Your task to perform on an android device: create a new album in the google photos Image 0: 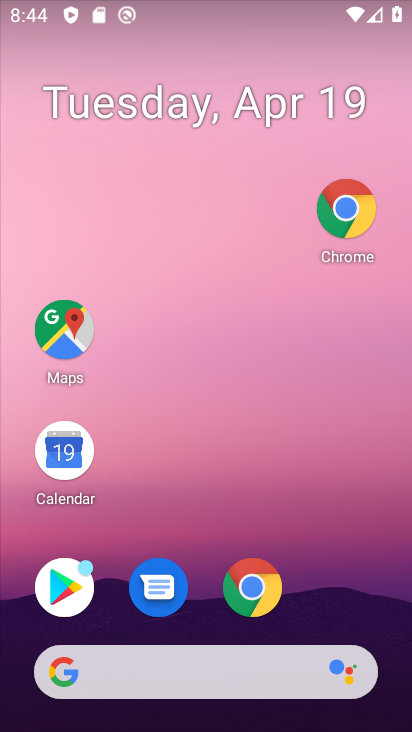
Step 0: drag from (312, 700) to (139, 88)
Your task to perform on an android device: create a new album in the google photos Image 1: 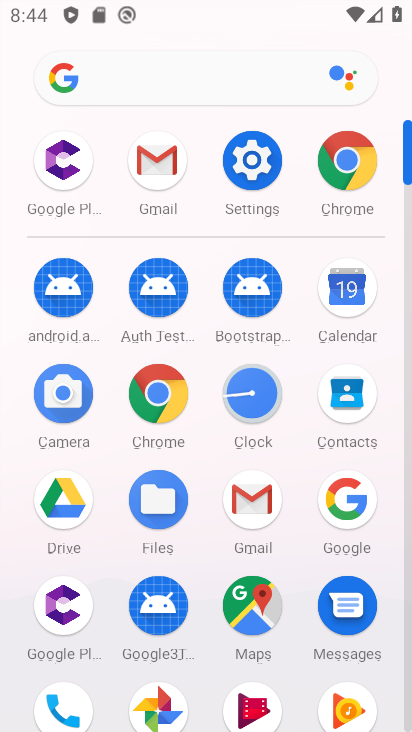
Step 1: click (151, 701)
Your task to perform on an android device: create a new album in the google photos Image 2: 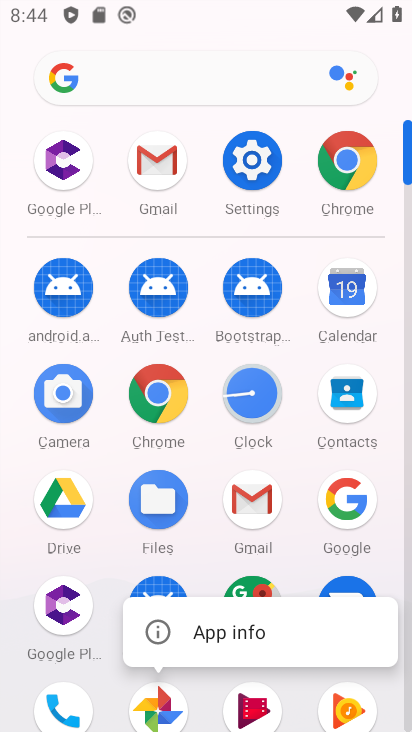
Step 2: click (152, 705)
Your task to perform on an android device: create a new album in the google photos Image 3: 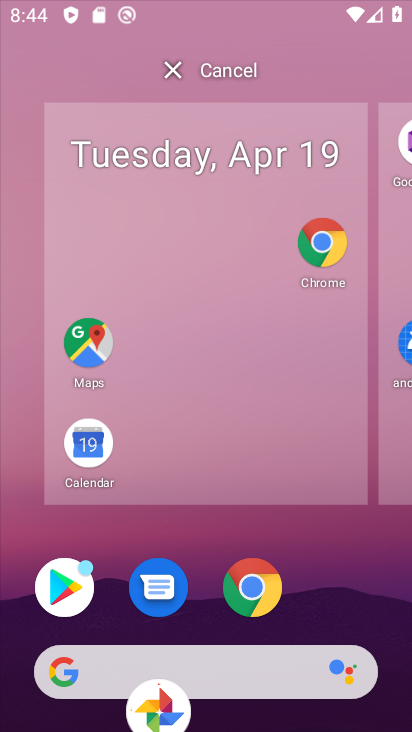
Step 3: click (153, 704)
Your task to perform on an android device: create a new album in the google photos Image 4: 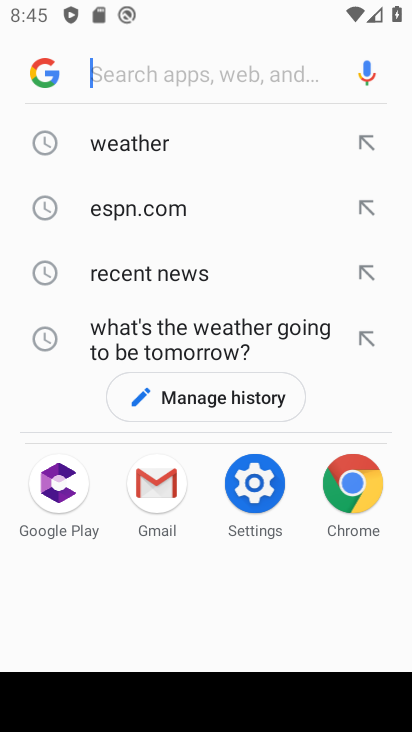
Step 4: press home button
Your task to perform on an android device: create a new album in the google photos Image 5: 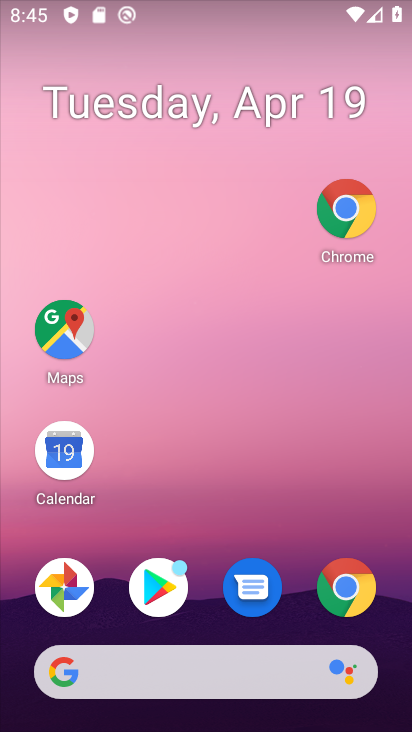
Step 5: press home button
Your task to perform on an android device: create a new album in the google photos Image 6: 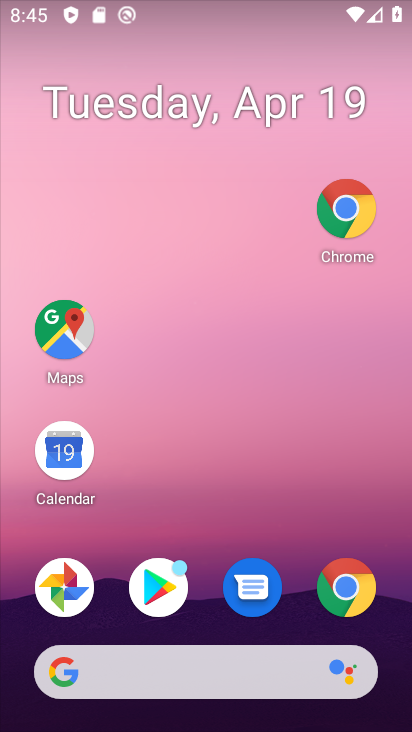
Step 6: drag from (267, 698) to (166, 168)
Your task to perform on an android device: create a new album in the google photos Image 7: 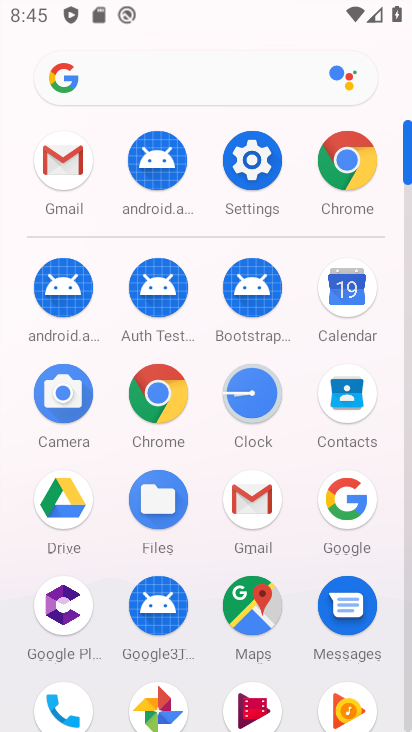
Step 7: click (152, 704)
Your task to perform on an android device: create a new album in the google photos Image 8: 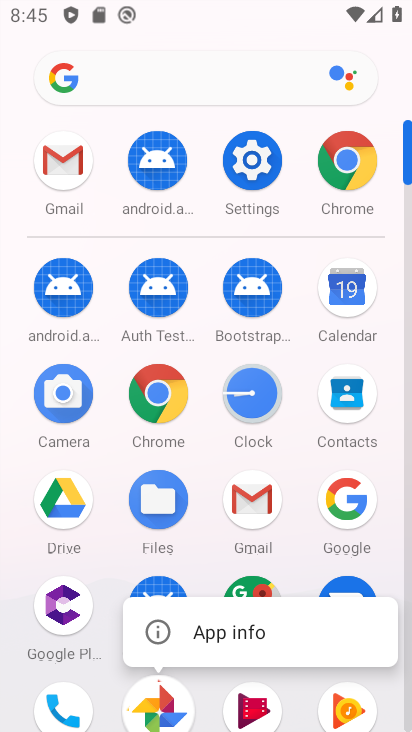
Step 8: click (152, 704)
Your task to perform on an android device: create a new album in the google photos Image 9: 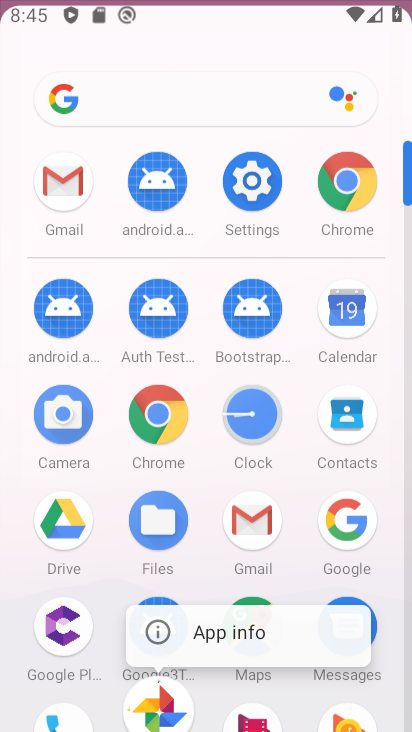
Step 9: click (152, 695)
Your task to perform on an android device: create a new album in the google photos Image 10: 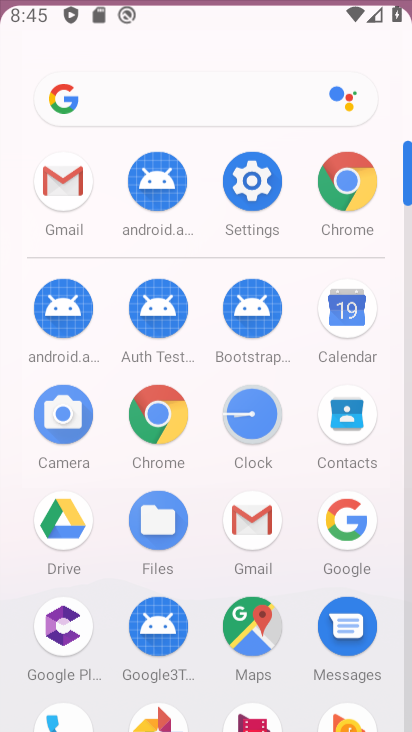
Step 10: click (154, 694)
Your task to perform on an android device: create a new album in the google photos Image 11: 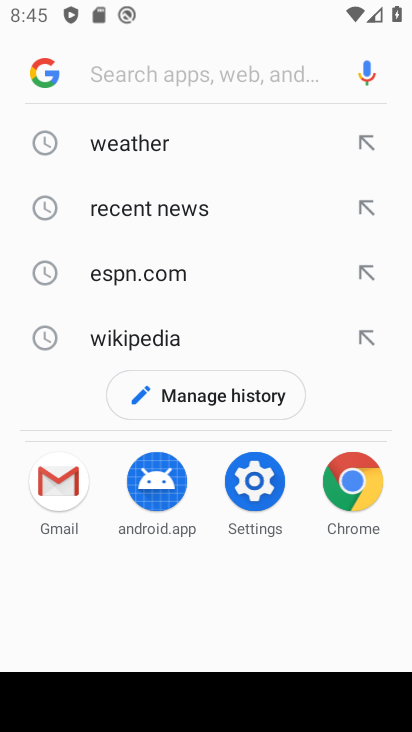
Step 11: press home button
Your task to perform on an android device: create a new album in the google photos Image 12: 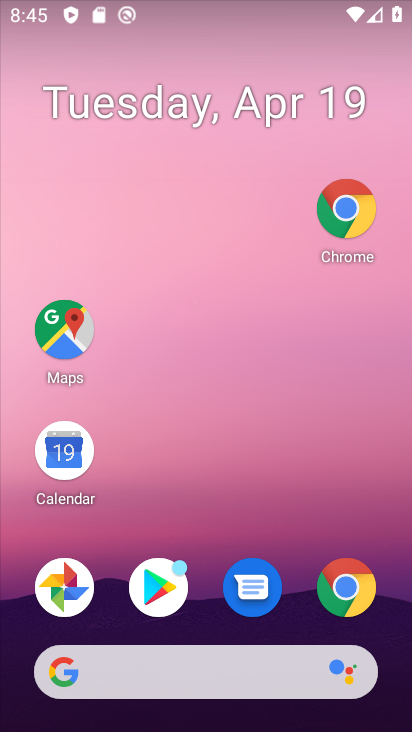
Step 12: drag from (190, 484) to (161, 23)
Your task to perform on an android device: create a new album in the google photos Image 13: 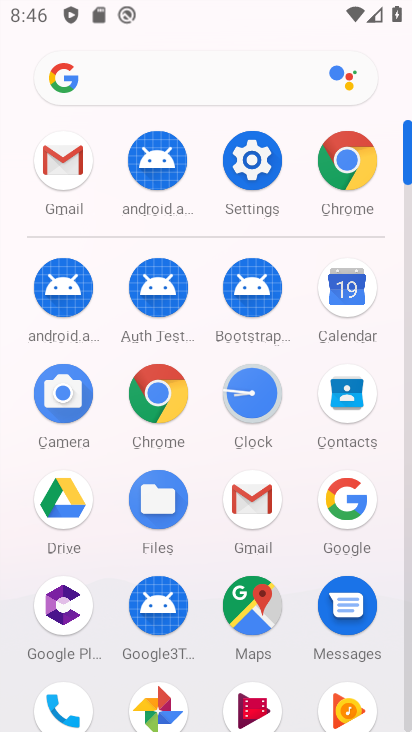
Step 13: click (158, 698)
Your task to perform on an android device: create a new album in the google photos Image 14: 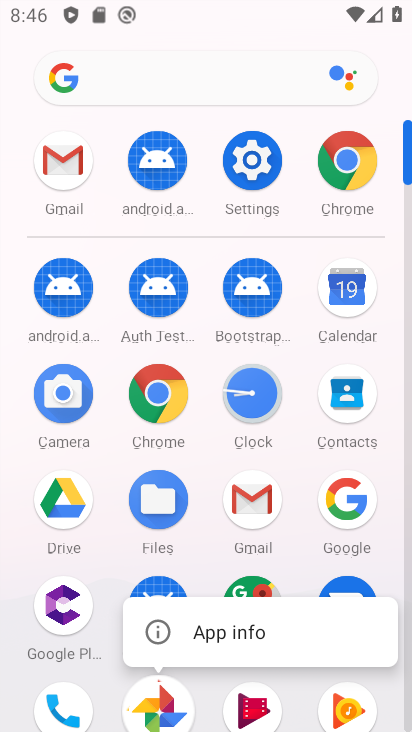
Step 14: click (158, 699)
Your task to perform on an android device: create a new album in the google photos Image 15: 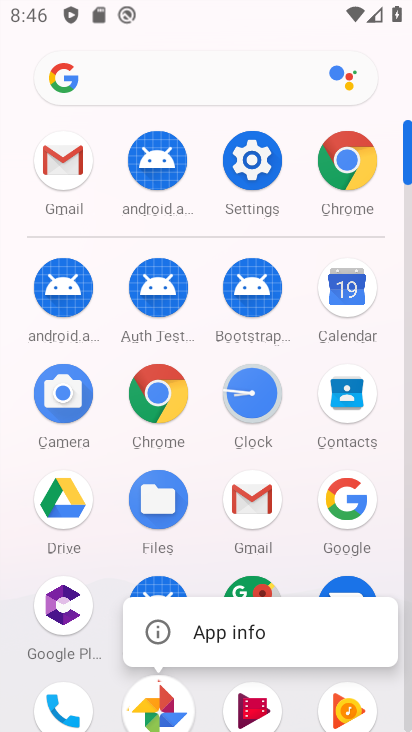
Step 15: click (160, 714)
Your task to perform on an android device: create a new album in the google photos Image 16: 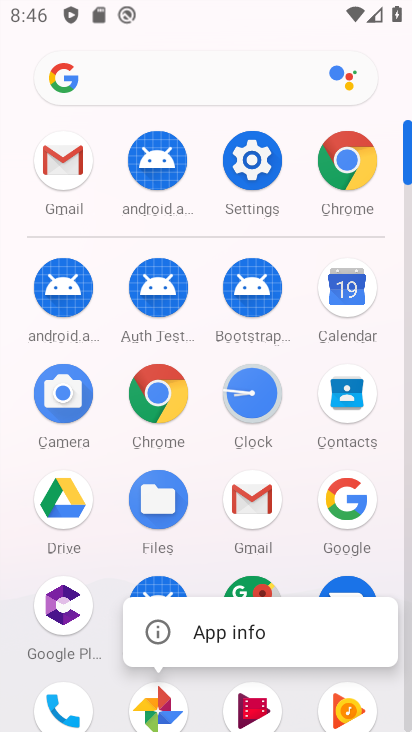
Step 16: click (163, 707)
Your task to perform on an android device: create a new album in the google photos Image 17: 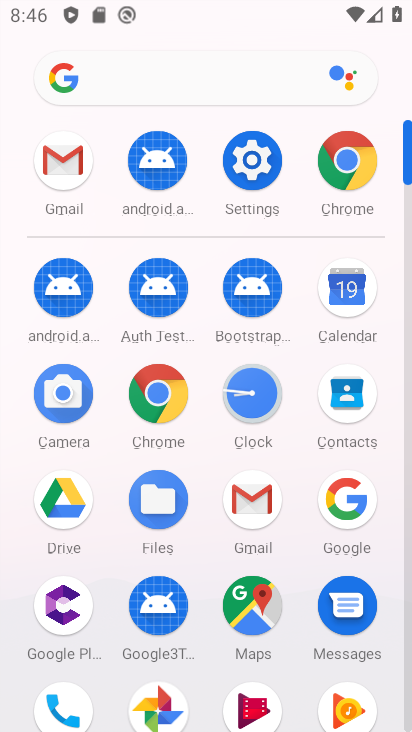
Step 17: click (163, 707)
Your task to perform on an android device: create a new album in the google photos Image 18: 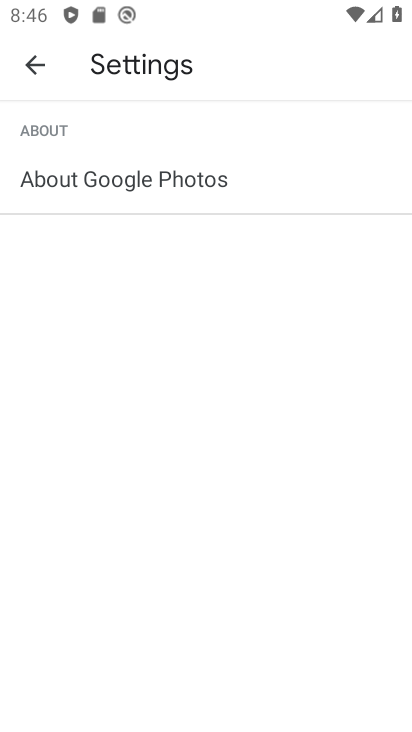
Step 18: click (28, 60)
Your task to perform on an android device: create a new album in the google photos Image 19: 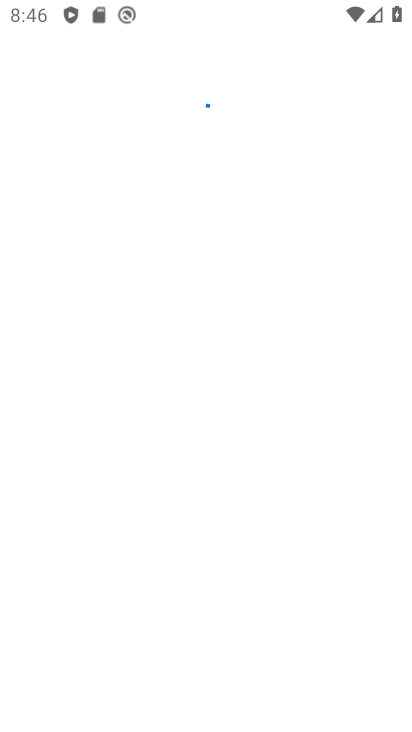
Step 19: click (28, 62)
Your task to perform on an android device: create a new album in the google photos Image 20: 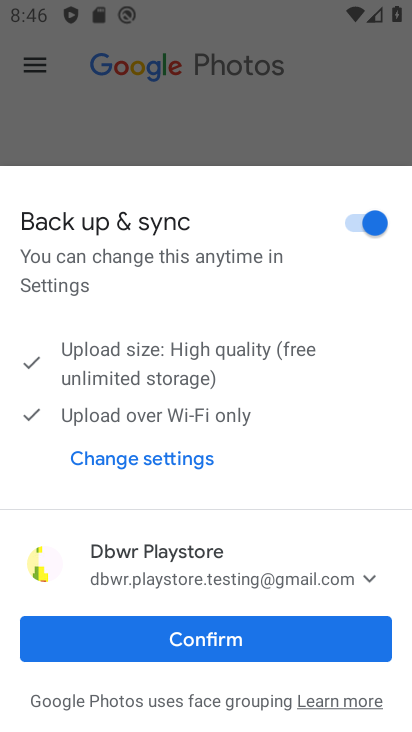
Step 20: click (218, 629)
Your task to perform on an android device: create a new album in the google photos Image 21: 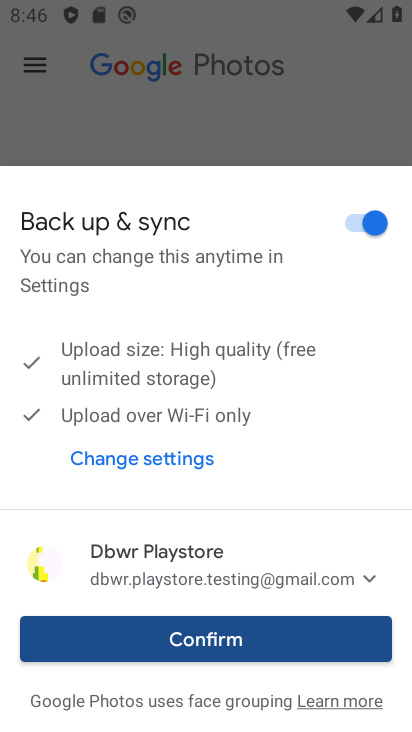
Step 21: click (218, 629)
Your task to perform on an android device: create a new album in the google photos Image 22: 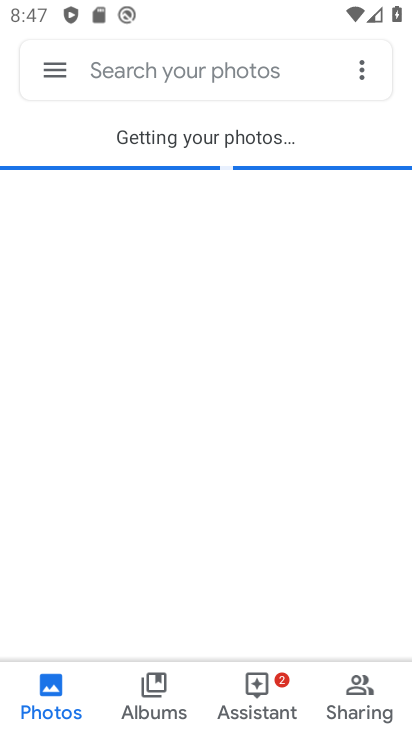
Step 22: click (62, 68)
Your task to perform on an android device: create a new album in the google photos Image 23: 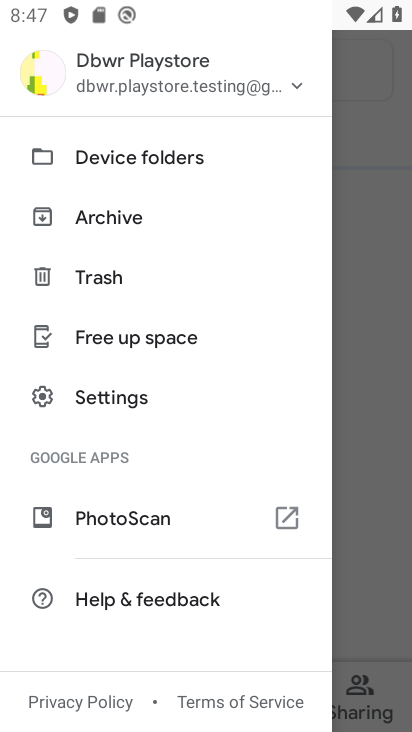
Step 23: click (375, 392)
Your task to perform on an android device: create a new album in the google photos Image 24: 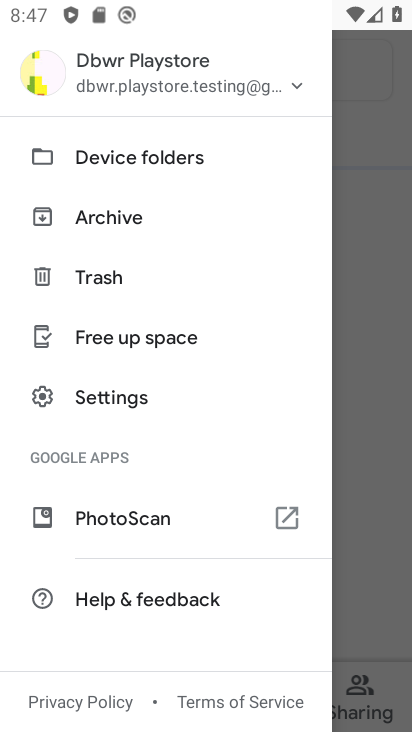
Step 24: click (375, 392)
Your task to perform on an android device: create a new album in the google photos Image 25: 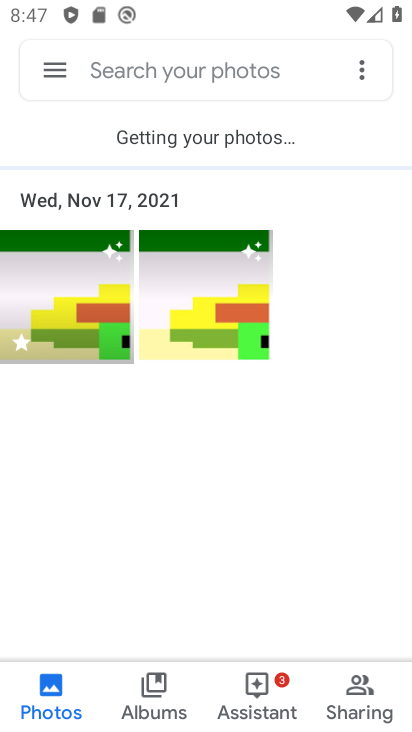
Step 25: click (51, 278)
Your task to perform on an android device: create a new album in the google photos Image 26: 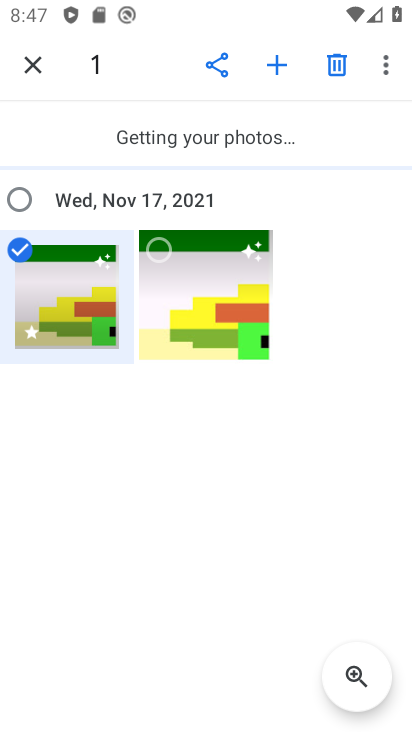
Step 26: click (153, 253)
Your task to perform on an android device: create a new album in the google photos Image 27: 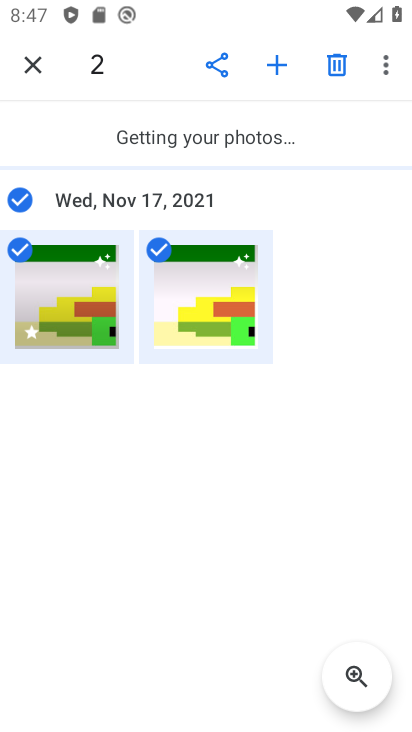
Step 27: click (386, 62)
Your task to perform on an android device: create a new album in the google photos Image 28: 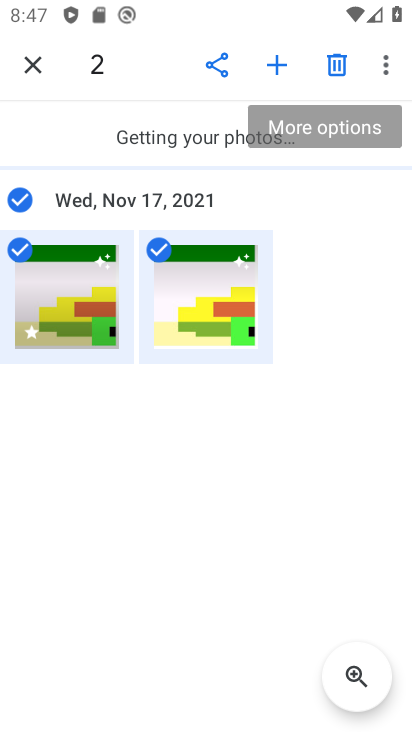
Step 28: click (337, 129)
Your task to perform on an android device: create a new album in the google photos Image 29: 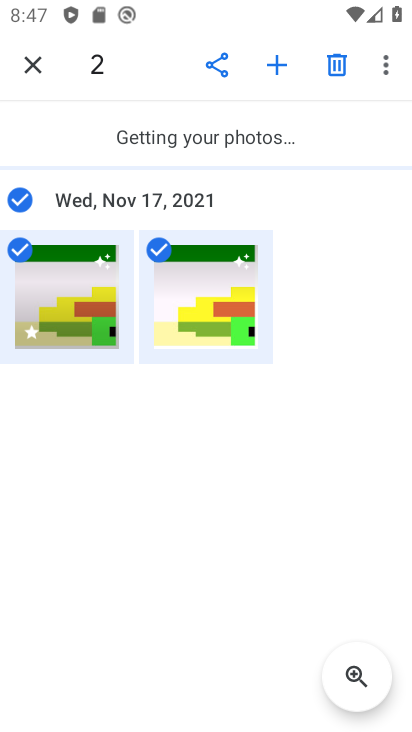
Step 29: click (270, 55)
Your task to perform on an android device: create a new album in the google photos Image 30: 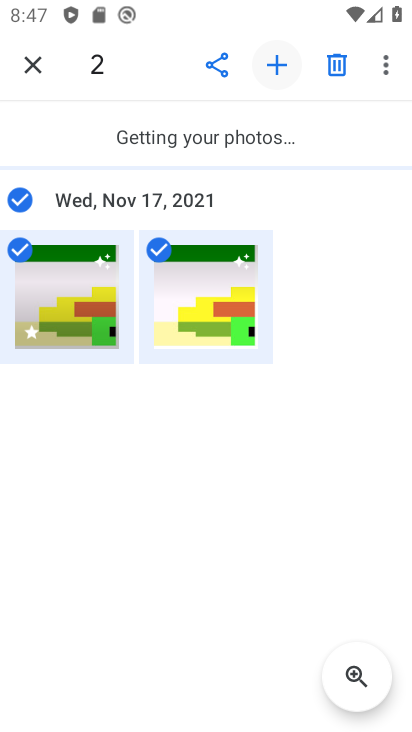
Step 30: click (270, 55)
Your task to perform on an android device: create a new album in the google photos Image 31: 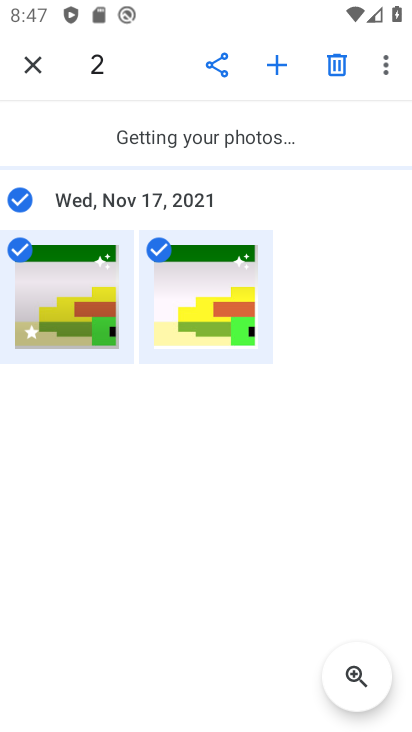
Step 31: click (277, 62)
Your task to perform on an android device: create a new album in the google photos Image 32: 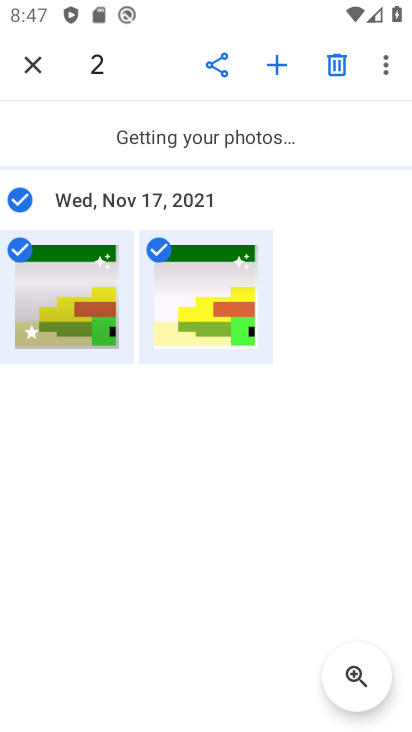
Step 32: click (277, 62)
Your task to perform on an android device: create a new album in the google photos Image 33: 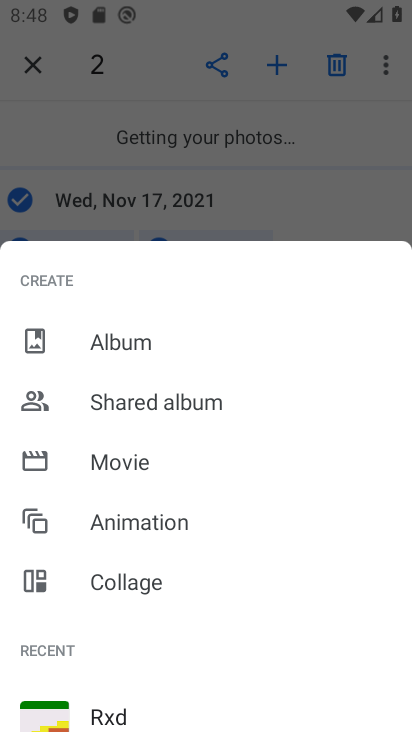
Step 33: click (111, 344)
Your task to perform on an android device: create a new album in the google photos Image 34: 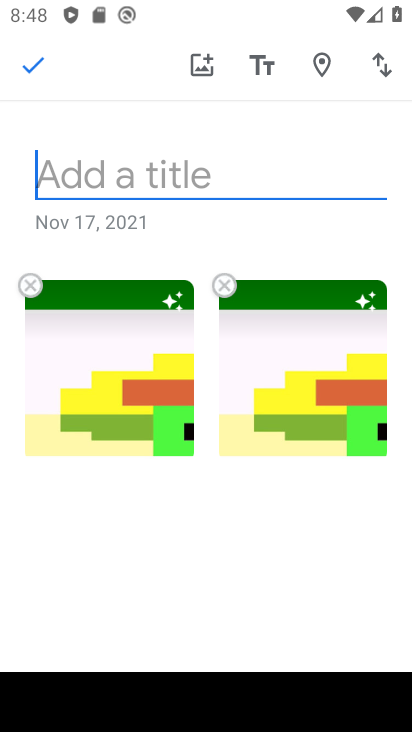
Step 34: type "sharma"
Your task to perform on an android device: create a new album in the google photos Image 35: 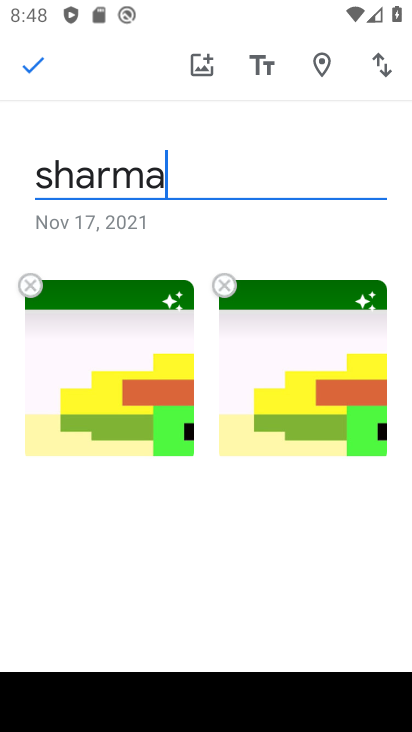
Step 35: click (221, 284)
Your task to perform on an android device: create a new album in the google photos Image 36: 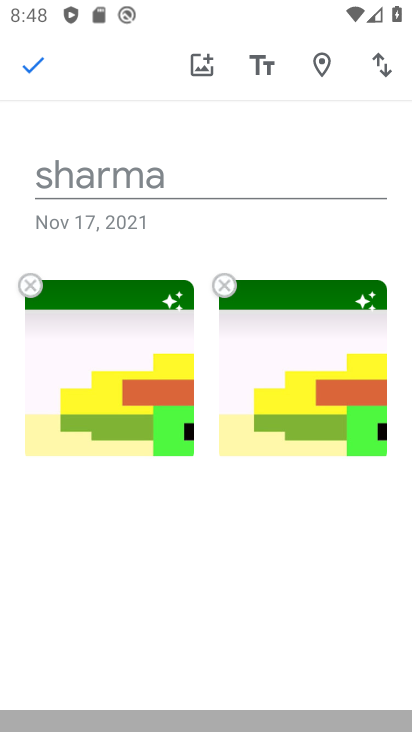
Step 36: click (221, 284)
Your task to perform on an android device: create a new album in the google photos Image 37: 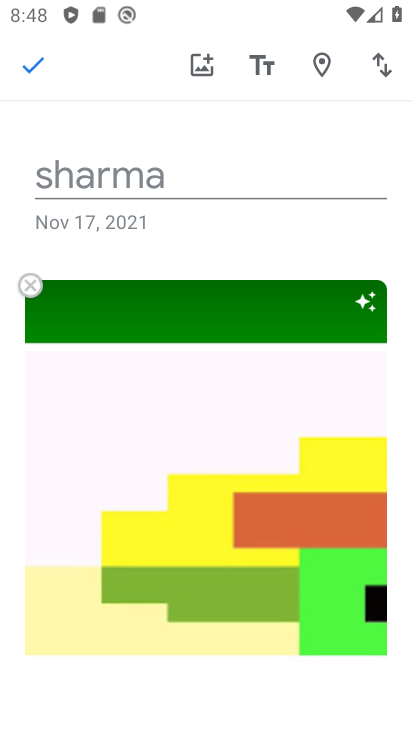
Step 37: click (206, 62)
Your task to perform on an android device: create a new album in the google photos Image 38: 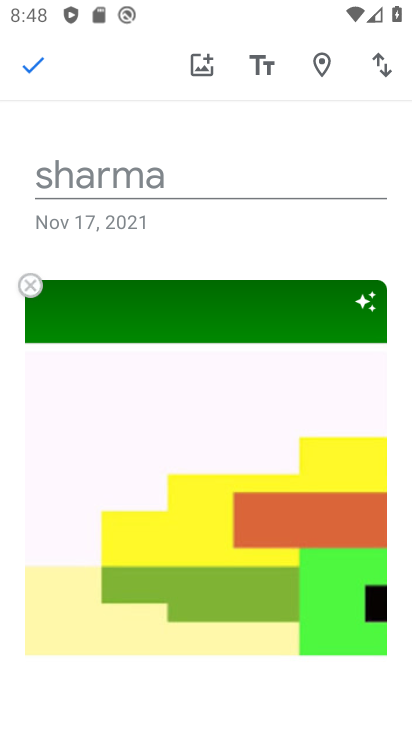
Step 38: click (206, 62)
Your task to perform on an android device: create a new album in the google photos Image 39: 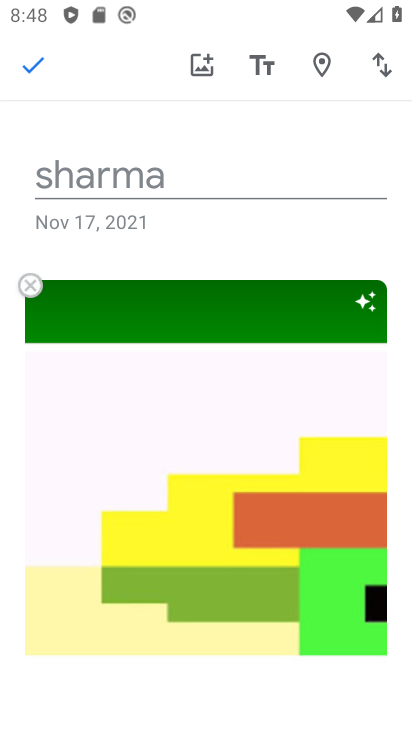
Step 39: click (206, 62)
Your task to perform on an android device: create a new album in the google photos Image 40: 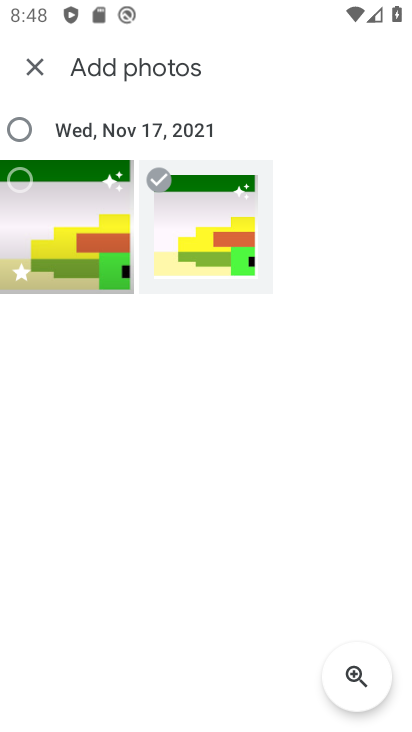
Step 40: click (35, 59)
Your task to perform on an android device: create a new album in the google photos Image 41: 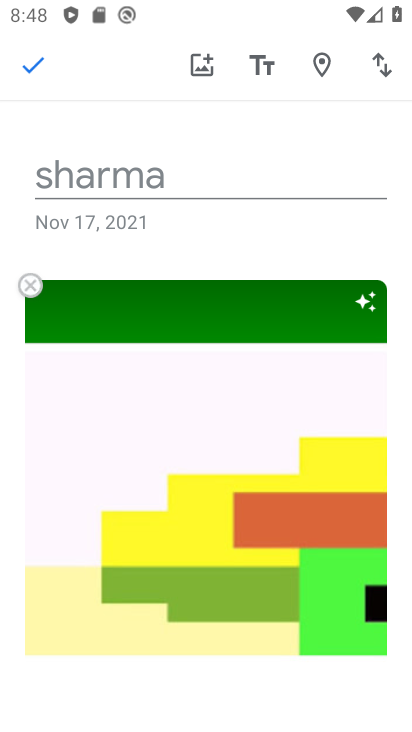
Step 41: task complete